Your task to perform on an android device: open chrome and create a bookmark for the current page Image 0: 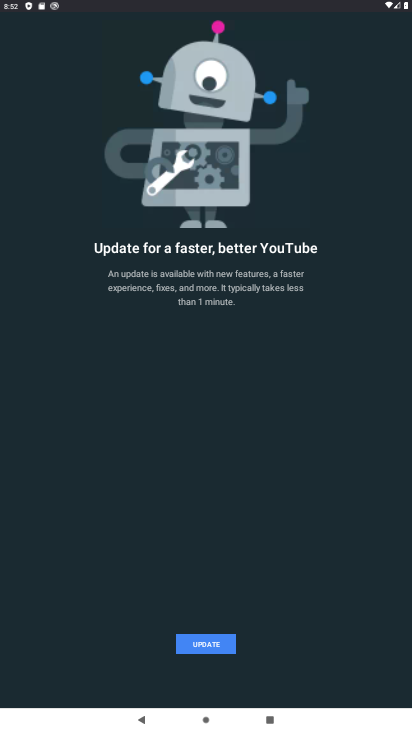
Step 0: press back button
Your task to perform on an android device: open chrome and create a bookmark for the current page Image 1: 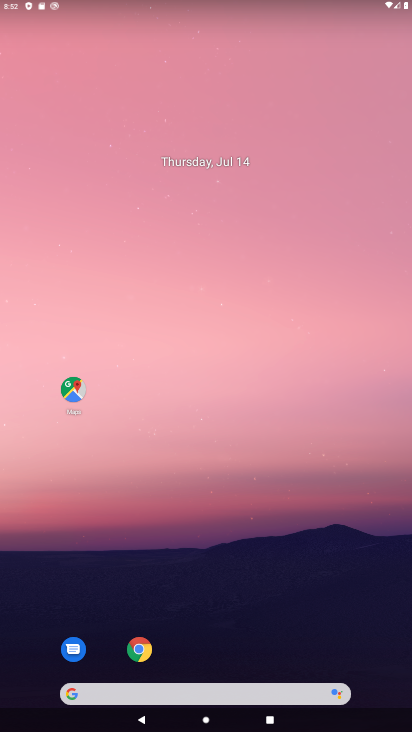
Step 1: drag from (249, 580) to (286, 675)
Your task to perform on an android device: open chrome and create a bookmark for the current page Image 2: 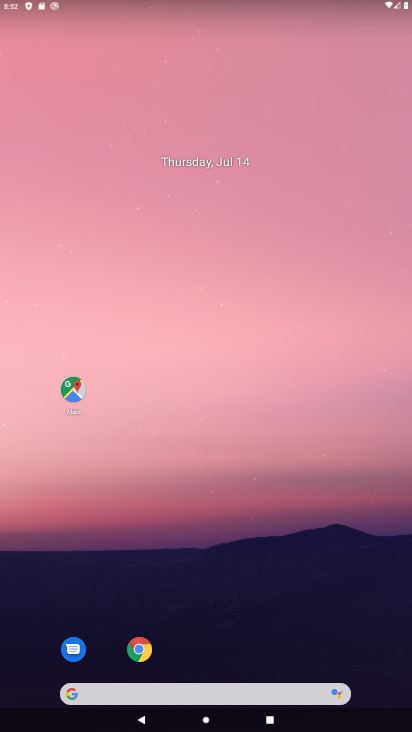
Step 2: click (138, 646)
Your task to perform on an android device: open chrome and create a bookmark for the current page Image 3: 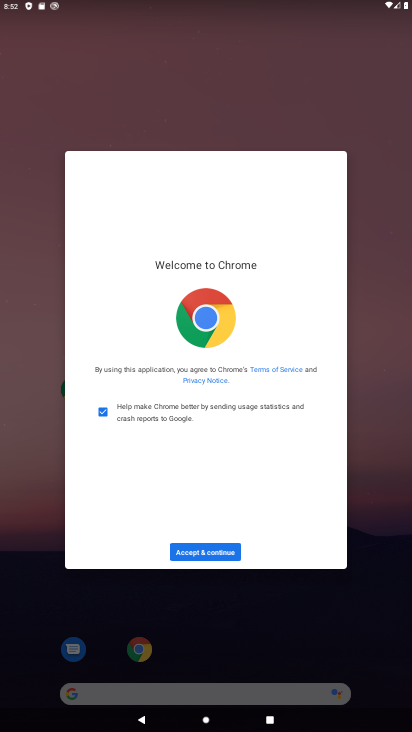
Step 3: click (224, 548)
Your task to perform on an android device: open chrome and create a bookmark for the current page Image 4: 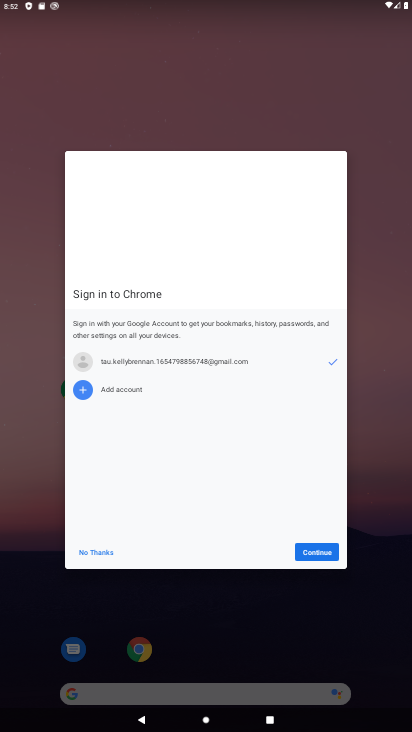
Step 4: click (302, 545)
Your task to perform on an android device: open chrome and create a bookmark for the current page Image 5: 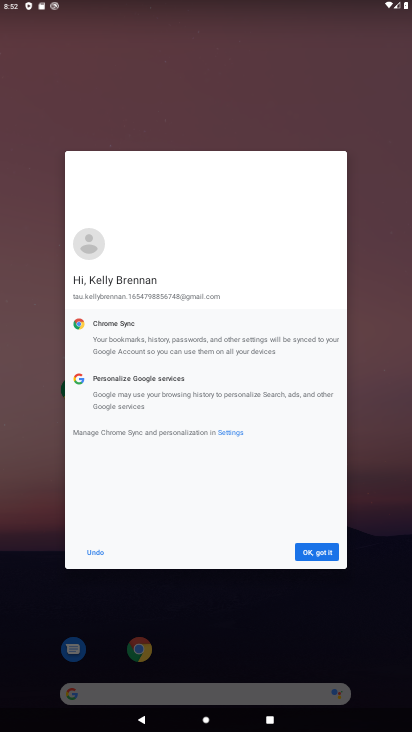
Step 5: click (308, 551)
Your task to perform on an android device: open chrome and create a bookmark for the current page Image 6: 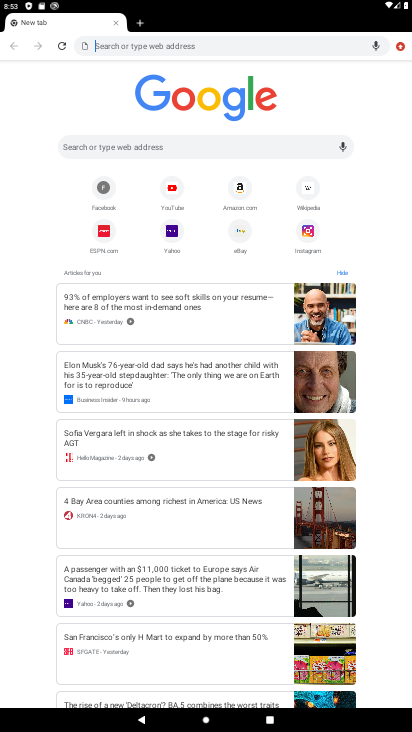
Step 6: click (403, 46)
Your task to perform on an android device: open chrome and create a bookmark for the current page Image 7: 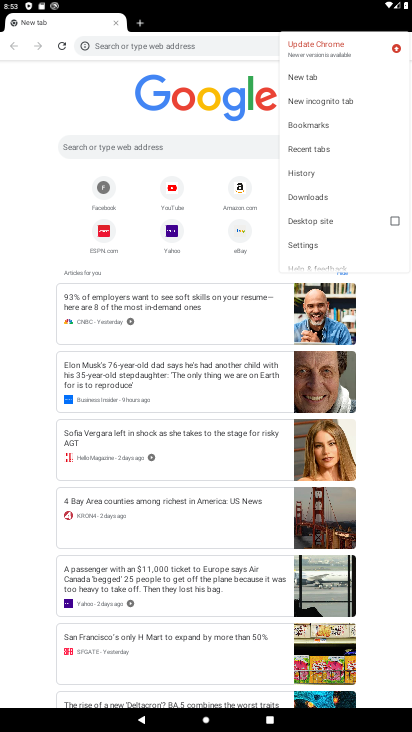
Step 7: click (263, 64)
Your task to perform on an android device: open chrome and create a bookmark for the current page Image 8: 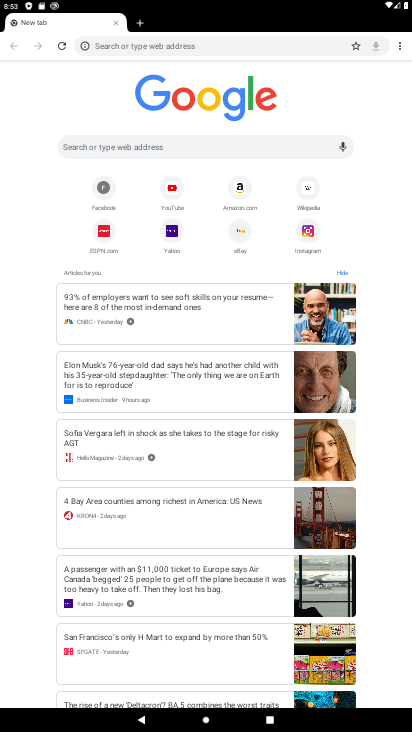
Step 8: click (361, 47)
Your task to perform on an android device: open chrome and create a bookmark for the current page Image 9: 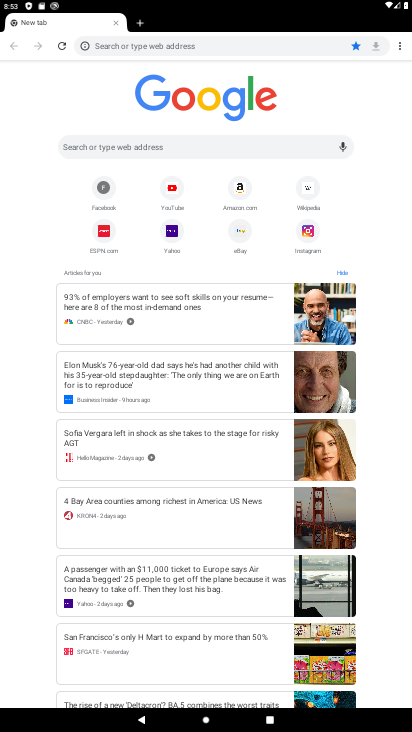
Step 9: task complete